Your task to perform on an android device: Go to Android settings Image 0: 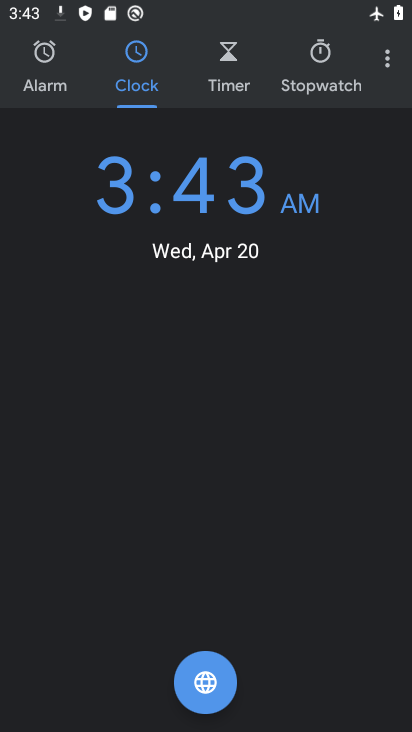
Step 0: press home button
Your task to perform on an android device: Go to Android settings Image 1: 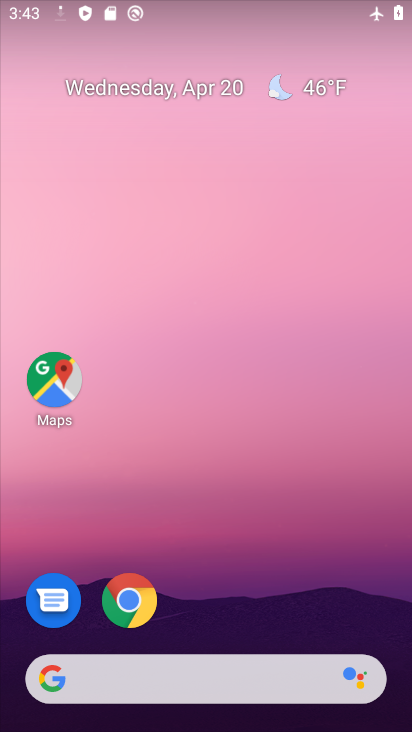
Step 1: drag from (250, 478) to (228, 74)
Your task to perform on an android device: Go to Android settings Image 2: 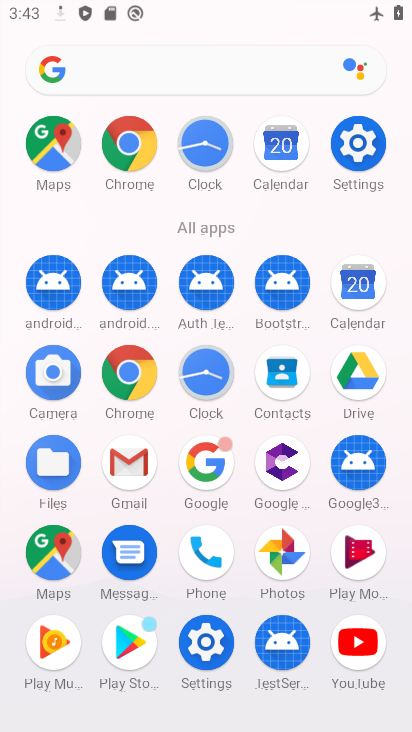
Step 2: click (364, 137)
Your task to perform on an android device: Go to Android settings Image 3: 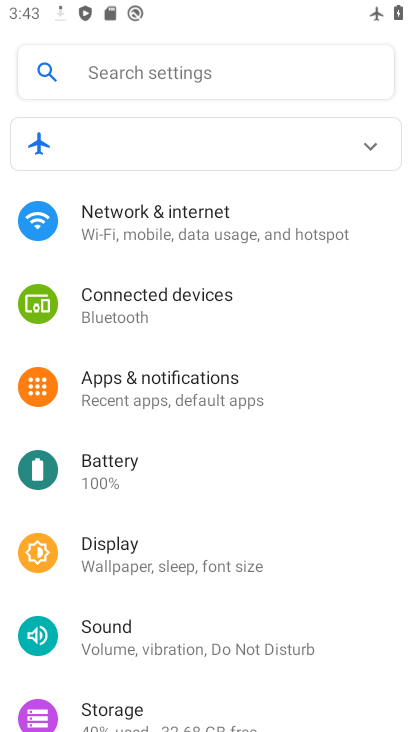
Step 3: drag from (252, 582) to (261, 105)
Your task to perform on an android device: Go to Android settings Image 4: 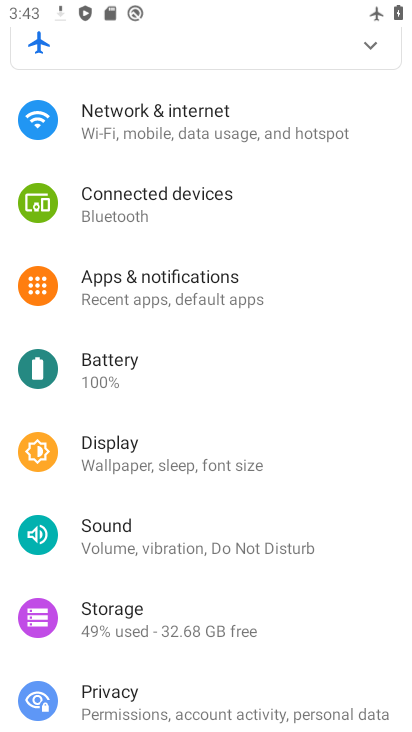
Step 4: drag from (235, 568) to (238, 76)
Your task to perform on an android device: Go to Android settings Image 5: 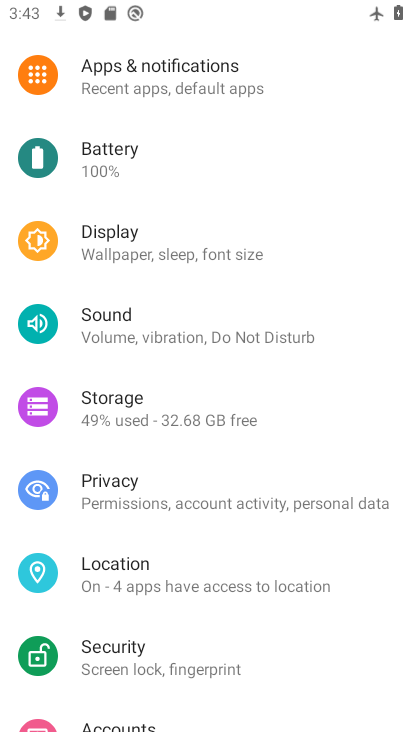
Step 5: drag from (236, 542) to (251, 89)
Your task to perform on an android device: Go to Android settings Image 6: 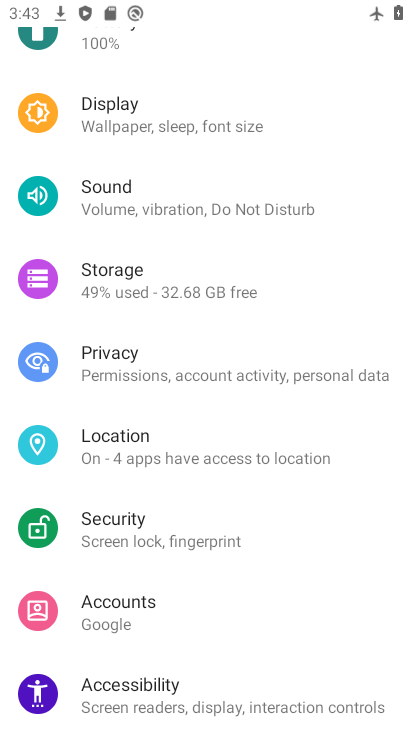
Step 6: drag from (213, 660) to (239, 161)
Your task to perform on an android device: Go to Android settings Image 7: 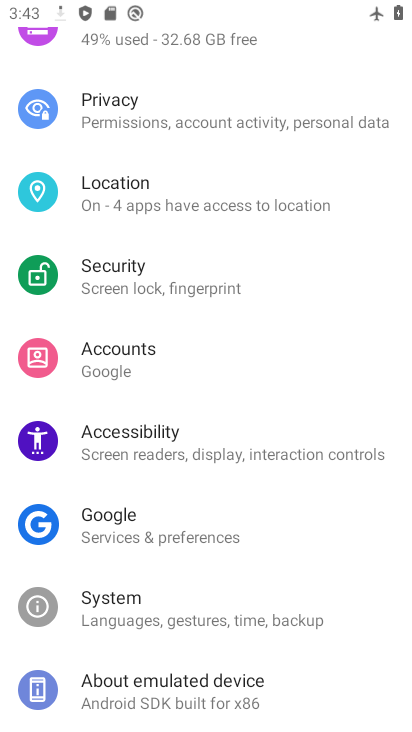
Step 7: click (214, 688)
Your task to perform on an android device: Go to Android settings Image 8: 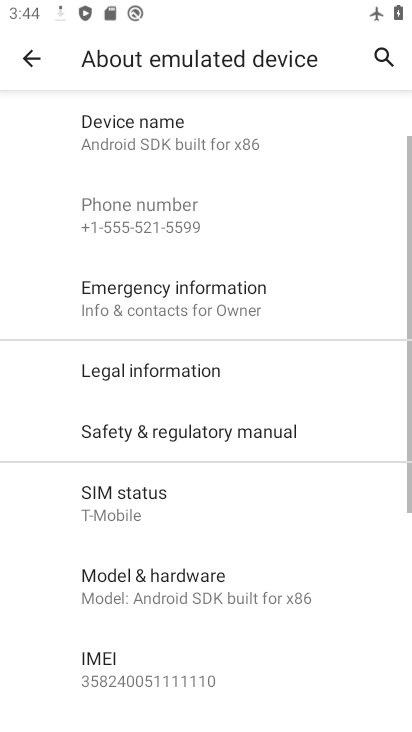
Step 8: drag from (224, 602) to (239, 228)
Your task to perform on an android device: Go to Android settings Image 9: 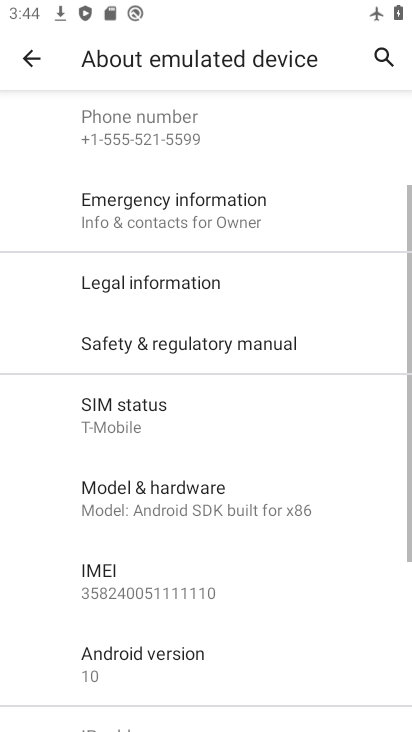
Step 9: click (243, 684)
Your task to perform on an android device: Go to Android settings Image 10: 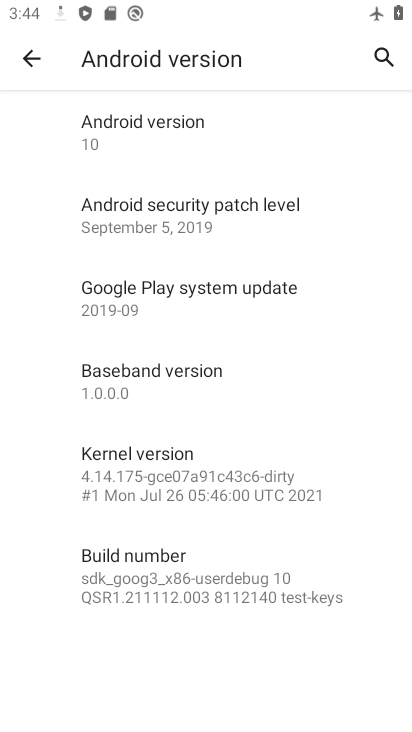
Step 10: task complete